Your task to perform on an android device: star an email in the gmail app Image 0: 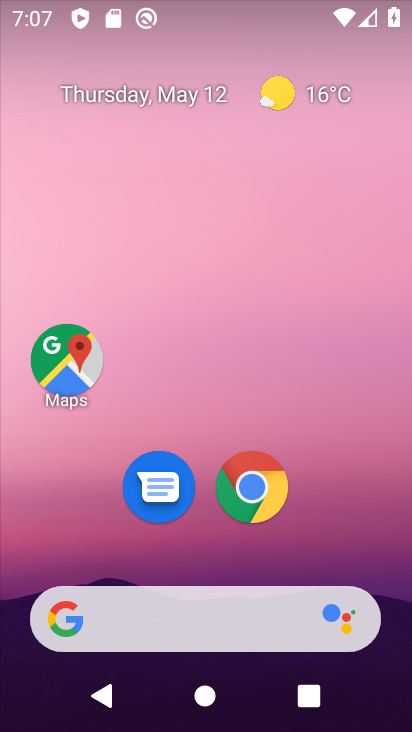
Step 0: drag from (336, 537) to (374, 119)
Your task to perform on an android device: star an email in the gmail app Image 1: 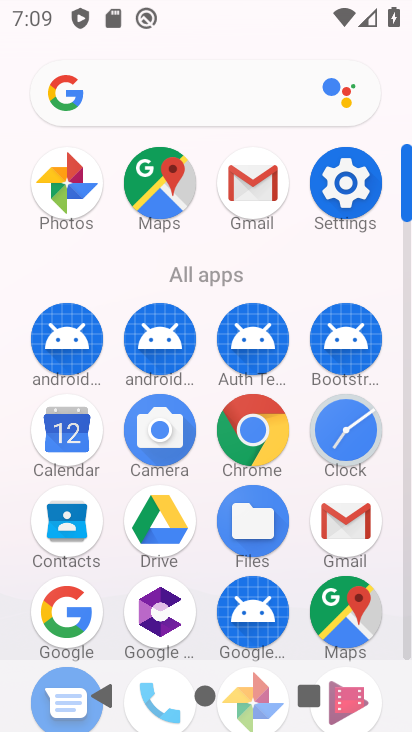
Step 1: click (241, 169)
Your task to perform on an android device: star an email in the gmail app Image 2: 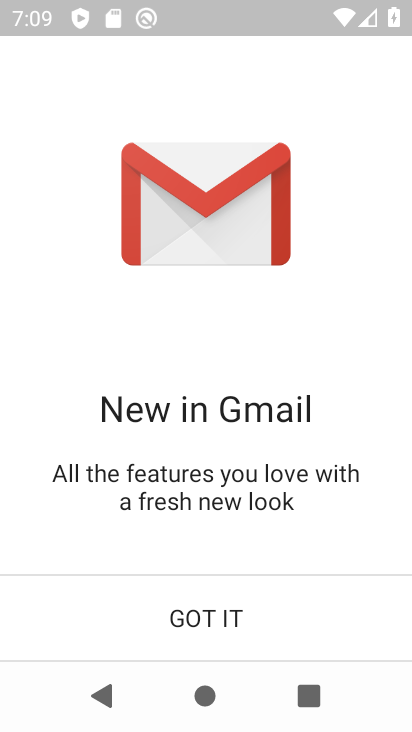
Step 2: click (200, 613)
Your task to perform on an android device: star an email in the gmail app Image 3: 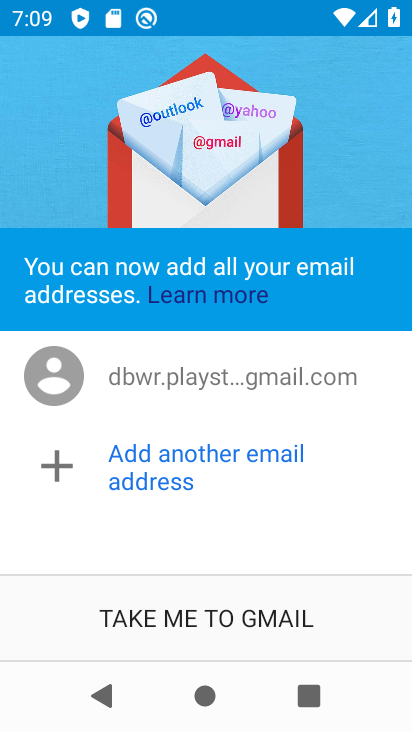
Step 3: click (200, 610)
Your task to perform on an android device: star an email in the gmail app Image 4: 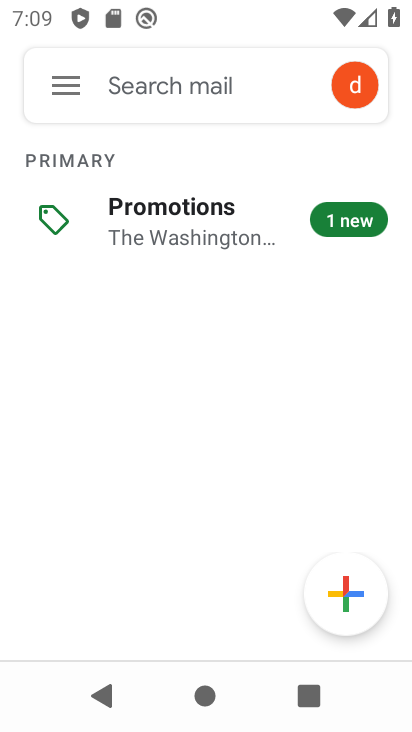
Step 4: click (352, 198)
Your task to perform on an android device: star an email in the gmail app Image 5: 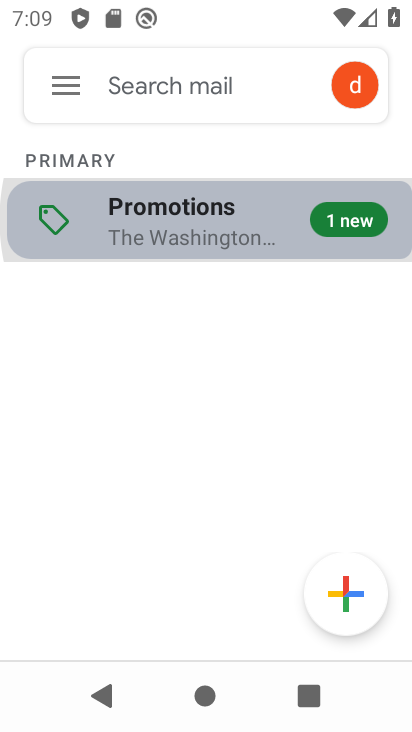
Step 5: click (361, 221)
Your task to perform on an android device: star an email in the gmail app Image 6: 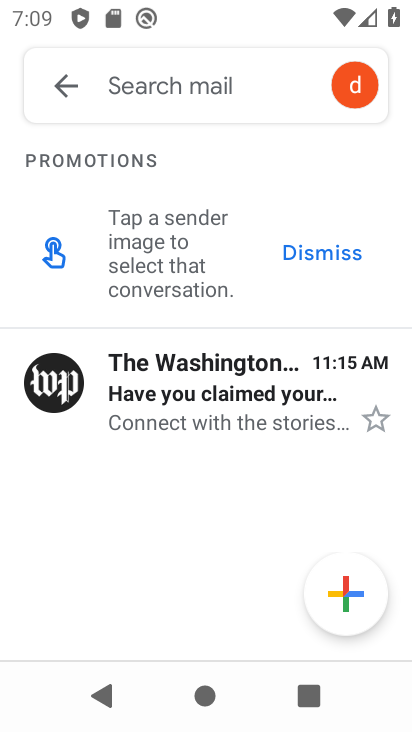
Step 6: click (378, 422)
Your task to perform on an android device: star an email in the gmail app Image 7: 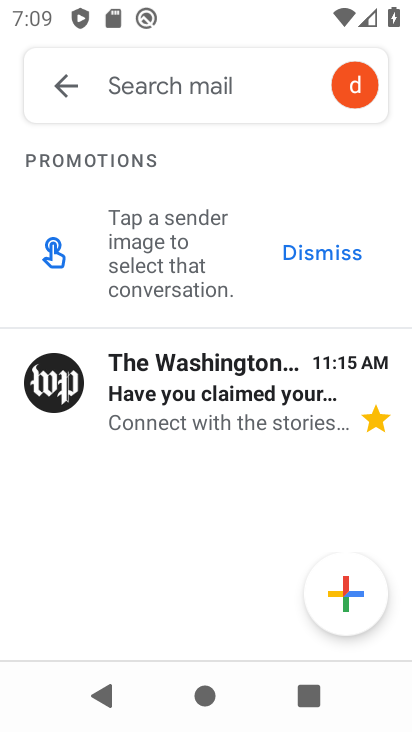
Step 7: task complete